Your task to perform on an android device: toggle show notifications on the lock screen Image 0: 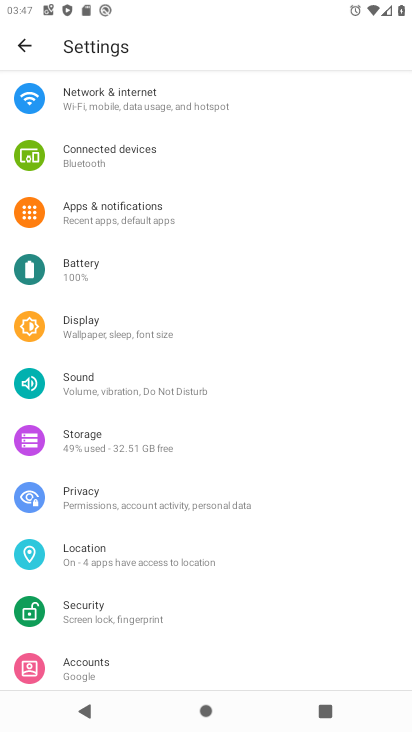
Step 0: press home button
Your task to perform on an android device: toggle show notifications on the lock screen Image 1: 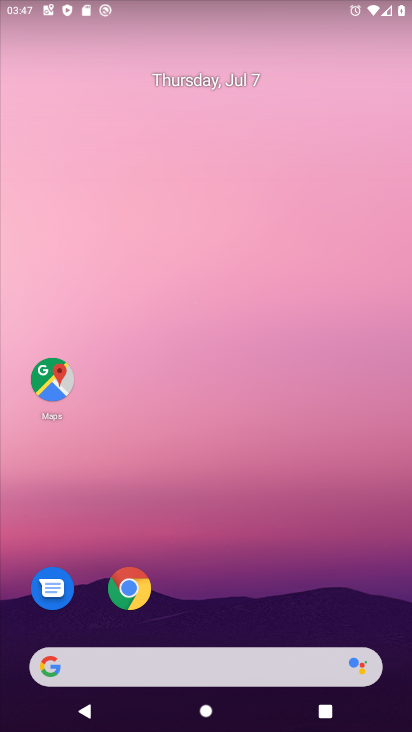
Step 1: drag from (277, 623) to (228, 375)
Your task to perform on an android device: toggle show notifications on the lock screen Image 2: 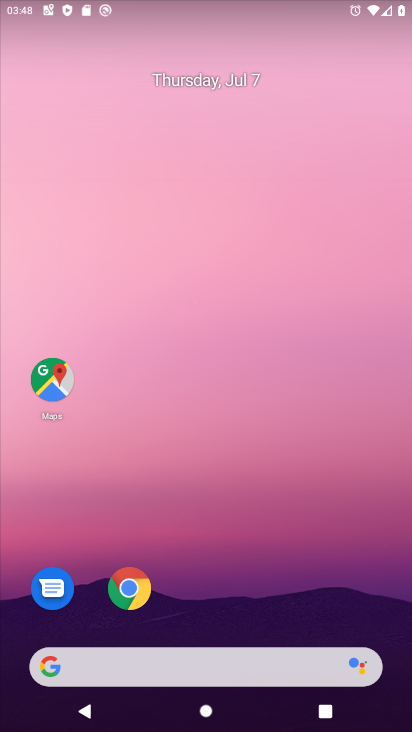
Step 2: drag from (226, 473) to (228, 212)
Your task to perform on an android device: toggle show notifications on the lock screen Image 3: 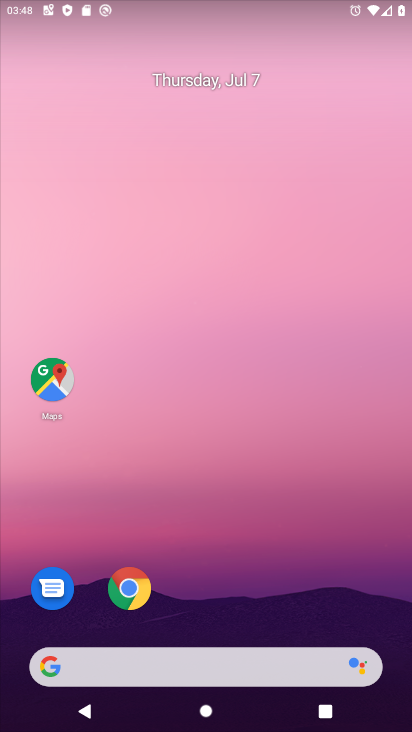
Step 3: drag from (267, 634) to (298, 77)
Your task to perform on an android device: toggle show notifications on the lock screen Image 4: 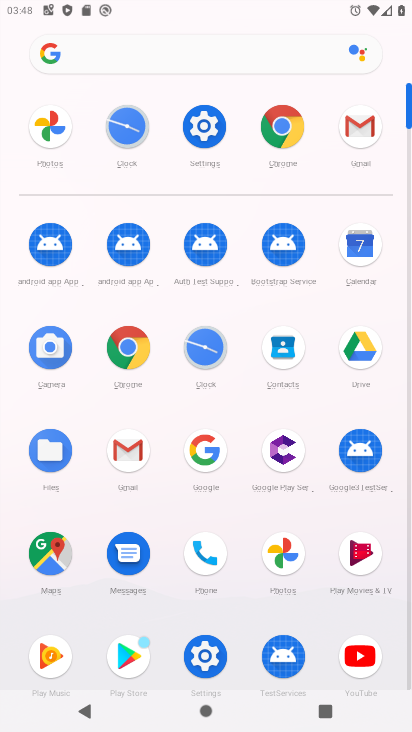
Step 4: click (207, 127)
Your task to perform on an android device: toggle show notifications on the lock screen Image 5: 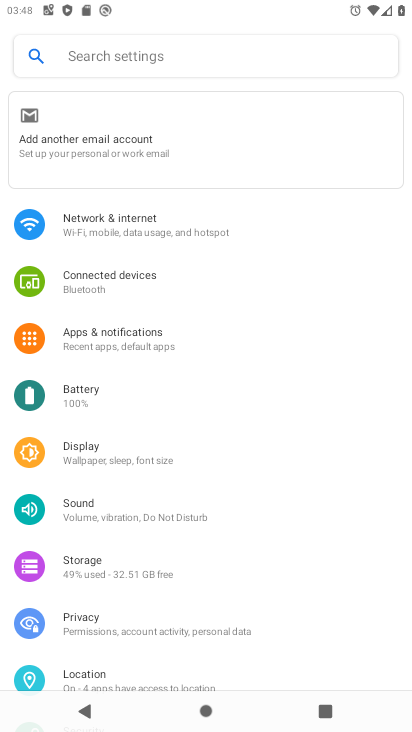
Step 5: click (82, 625)
Your task to perform on an android device: toggle show notifications on the lock screen Image 6: 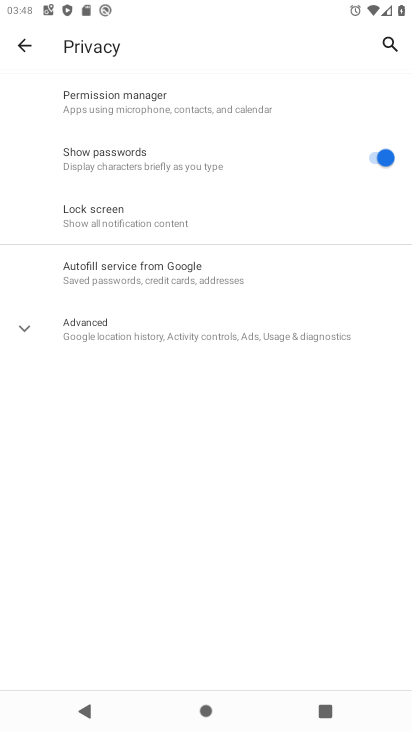
Step 6: click (108, 220)
Your task to perform on an android device: toggle show notifications on the lock screen Image 7: 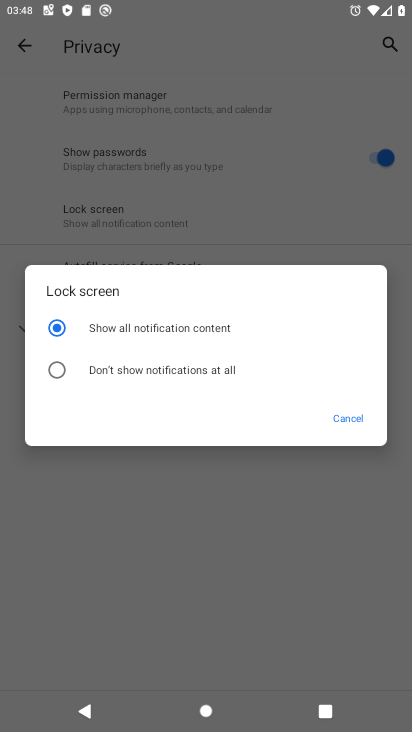
Step 7: click (132, 376)
Your task to perform on an android device: toggle show notifications on the lock screen Image 8: 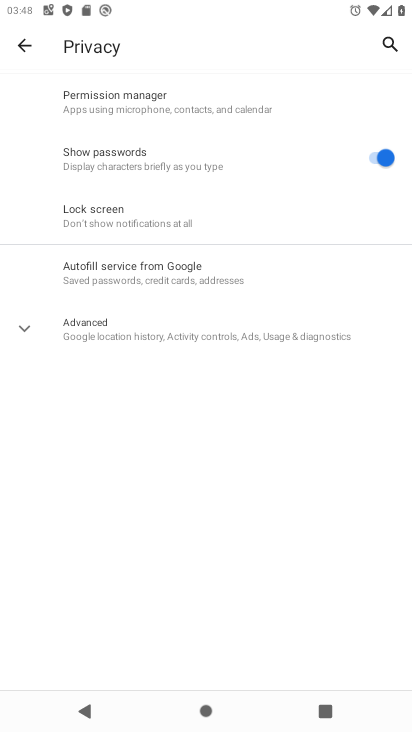
Step 8: task complete